Your task to perform on an android device: Search for Mexican restaurants on Maps Image 0: 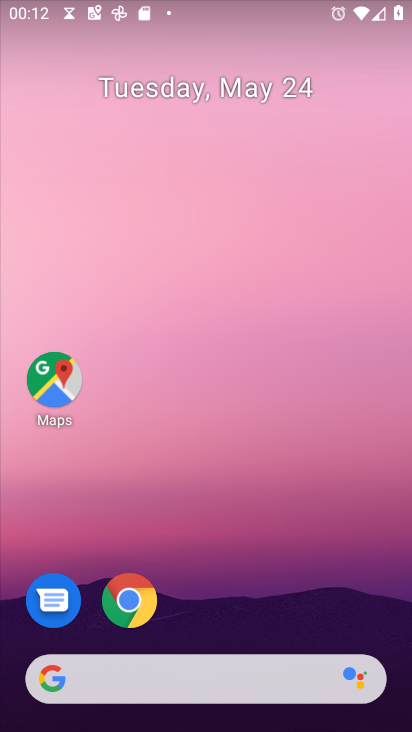
Step 0: drag from (185, 709) to (193, 66)
Your task to perform on an android device: Search for Mexican restaurants on Maps Image 1: 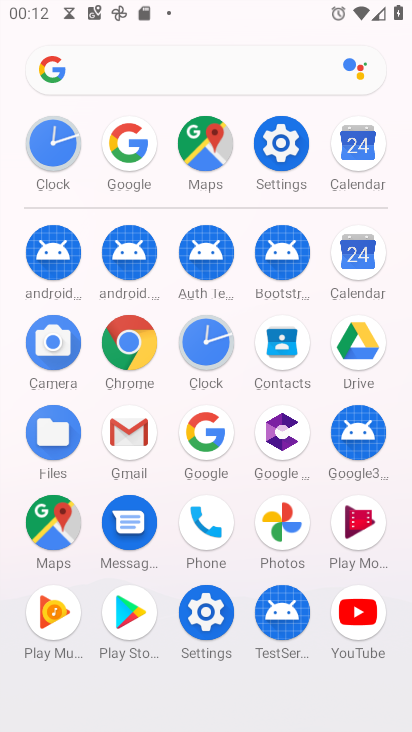
Step 1: click (39, 513)
Your task to perform on an android device: Search for Mexican restaurants on Maps Image 2: 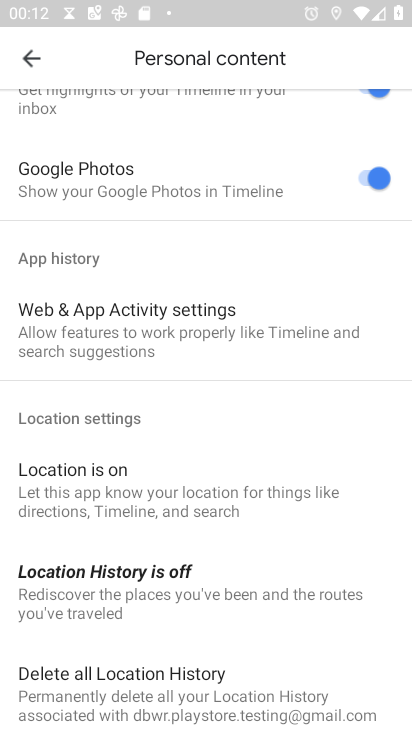
Step 2: click (19, 54)
Your task to perform on an android device: Search for Mexican restaurants on Maps Image 3: 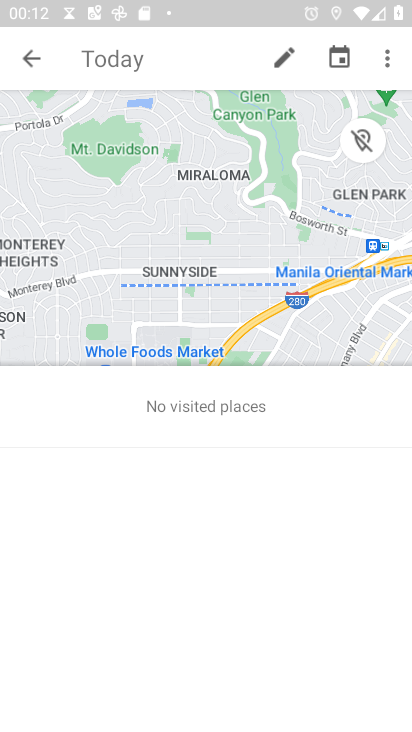
Step 3: click (29, 53)
Your task to perform on an android device: Search for Mexican restaurants on Maps Image 4: 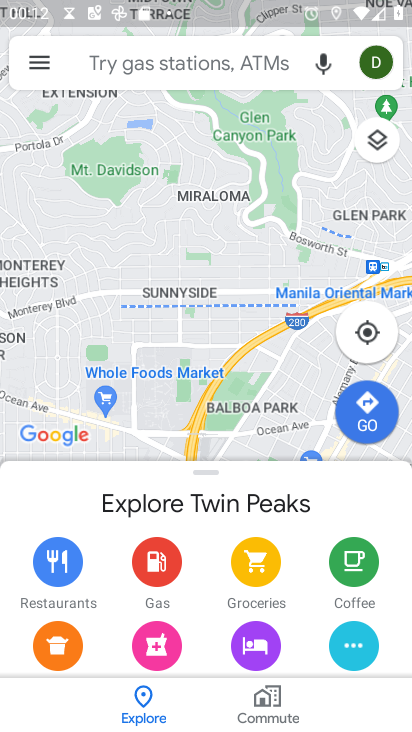
Step 4: click (228, 68)
Your task to perform on an android device: Search for Mexican restaurants on Maps Image 5: 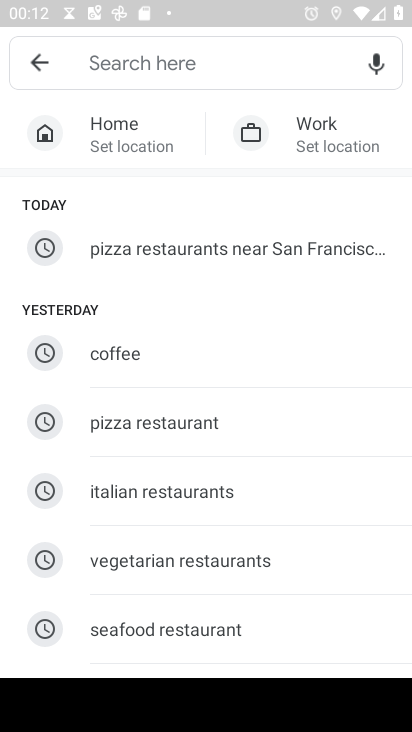
Step 5: type "Mexican restaurants"
Your task to perform on an android device: Search for Mexican restaurants on Maps Image 6: 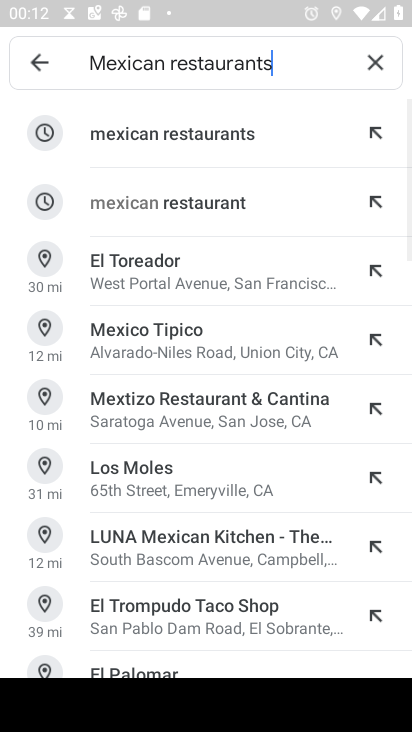
Step 6: click (201, 138)
Your task to perform on an android device: Search for Mexican restaurants on Maps Image 7: 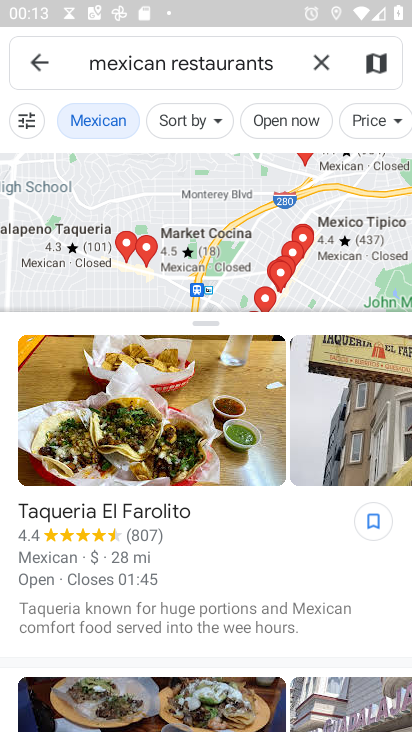
Step 7: task complete